Your task to perform on an android device: Open maps Image 0: 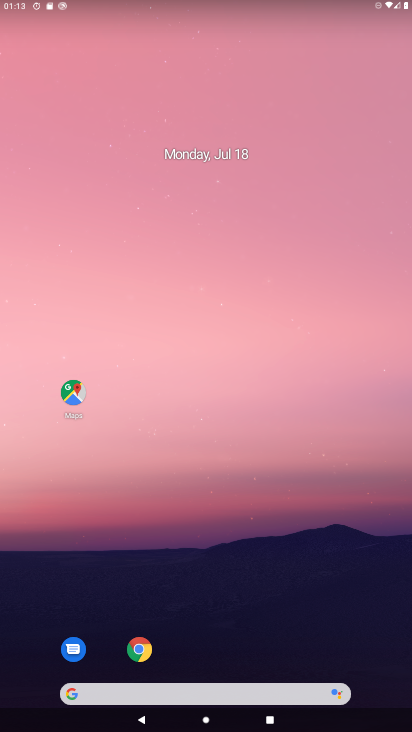
Step 0: click (76, 389)
Your task to perform on an android device: Open maps Image 1: 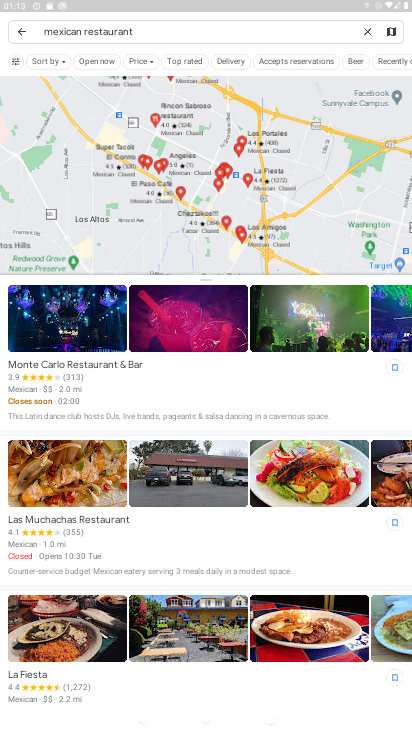
Step 1: click (23, 32)
Your task to perform on an android device: Open maps Image 2: 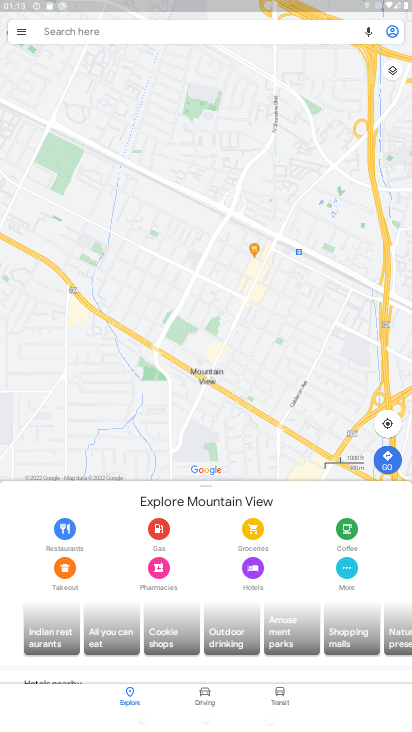
Step 2: press home button
Your task to perform on an android device: Open maps Image 3: 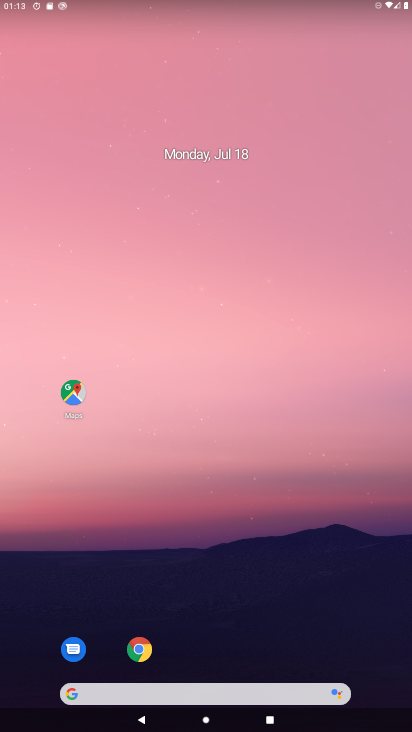
Step 3: click (86, 392)
Your task to perform on an android device: Open maps Image 4: 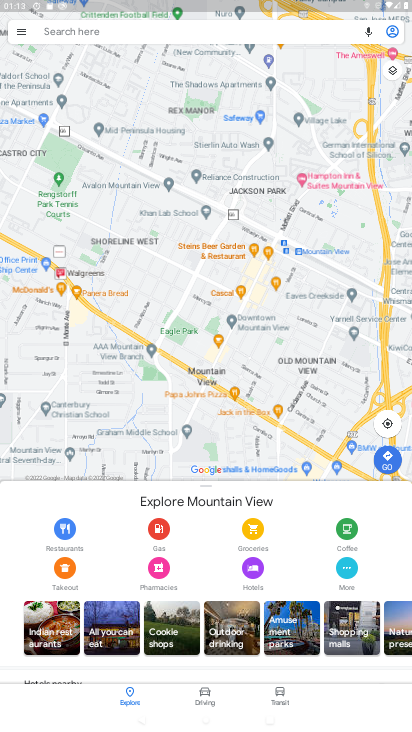
Step 4: task complete